Your task to perform on an android device: empty trash in google photos Image 0: 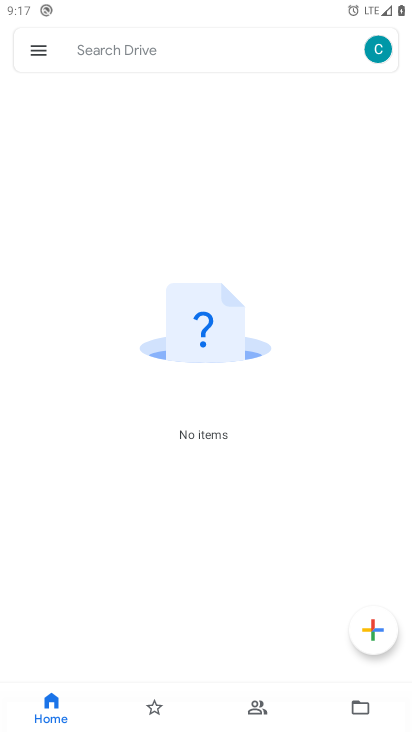
Step 0: press home button
Your task to perform on an android device: empty trash in google photos Image 1: 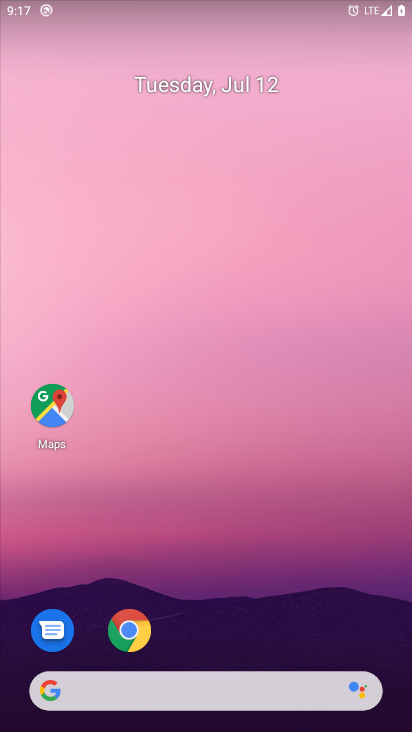
Step 1: press home button
Your task to perform on an android device: empty trash in google photos Image 2: 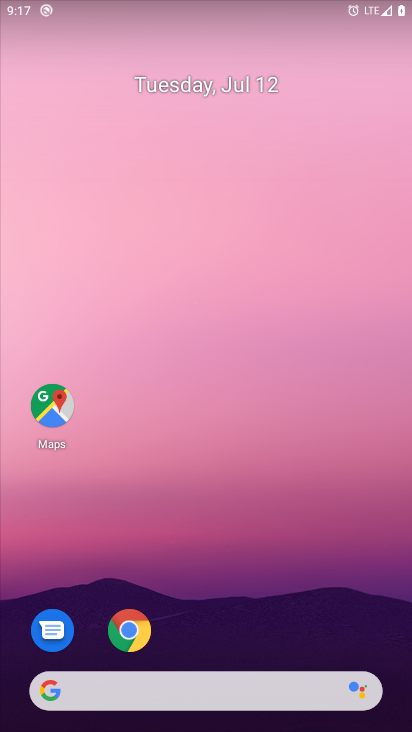
Step 2: drag from (253, 626) to (220, 121)
Your task to perform on an android device: empty trash in google photos Image 3: 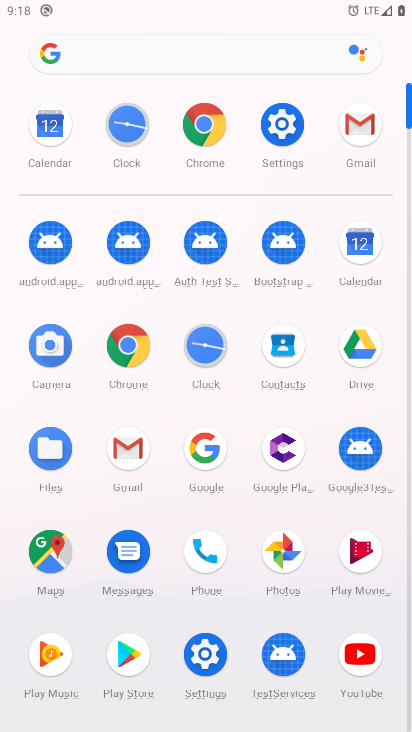
Step 3: click (282, 569)
Your task to perform on an android device: empty trash in google photos Image 4: 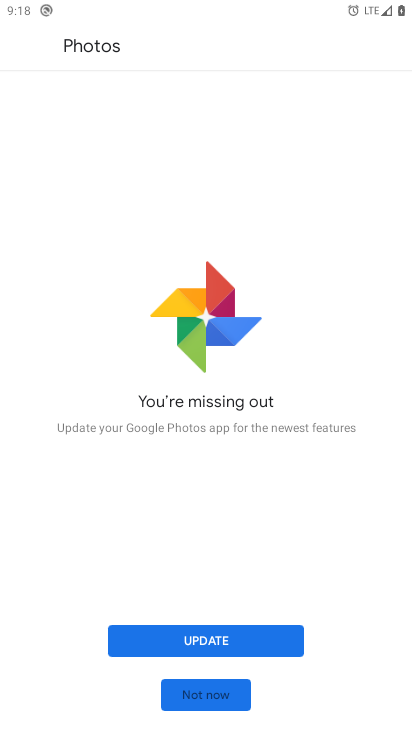
Step 4: click (222, 642)
Your task to perform on an android device: empty trash in google photos Image 5: 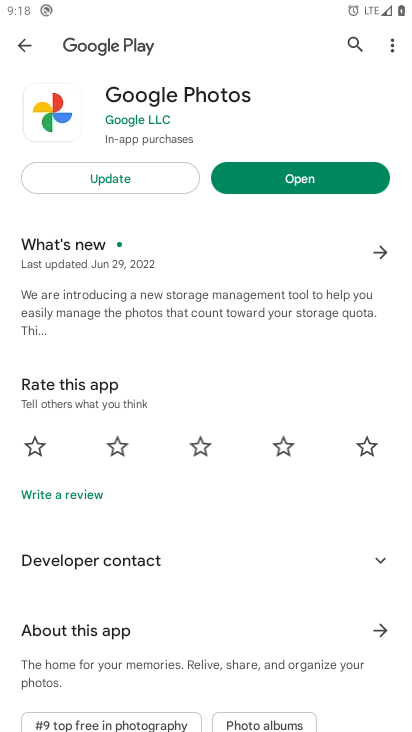
Step 5: click (107, 184)
Your task to perform on an android device: empty trash in google photos Image 6: 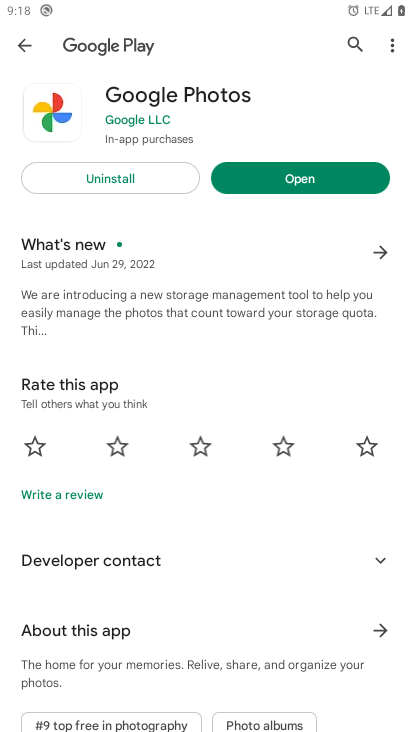
Step 6: click (306, 181)
Your task to perform on an android device: empty trash in google photos Image 7: 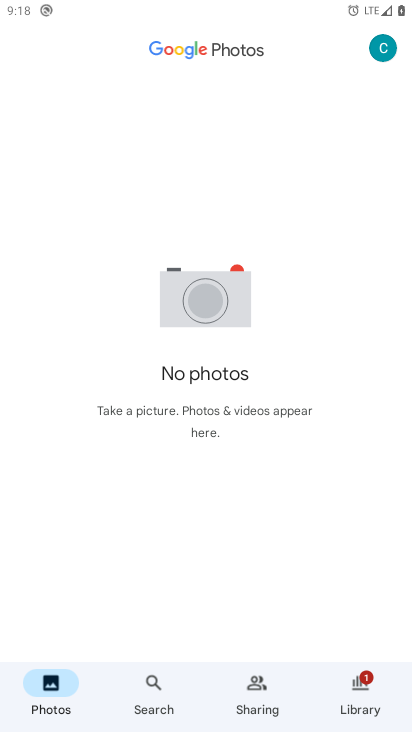
Step 7: click (377, 41)
Your task to perform on an android device: empty trash in google photos Image 8: 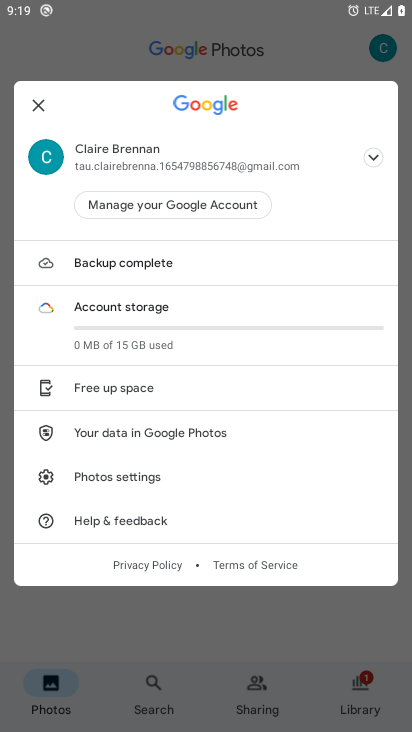
Step 8: click (168, 593)
Your task to perform on an android device: empty trash in google photos Image 9: 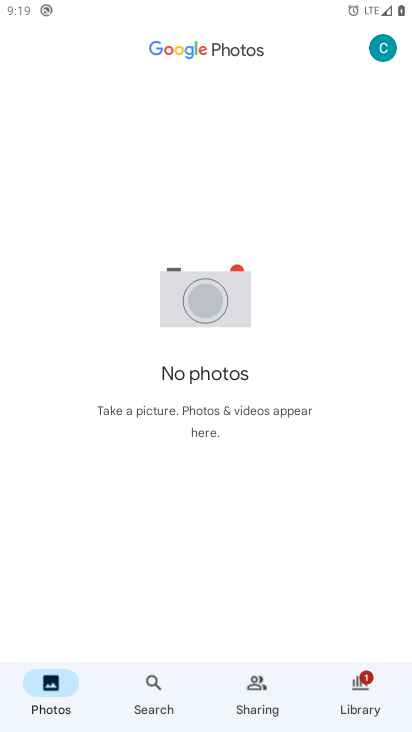
Step 9: task complete